Your task to perform on an android device: find photos in the google photos app Image 0: 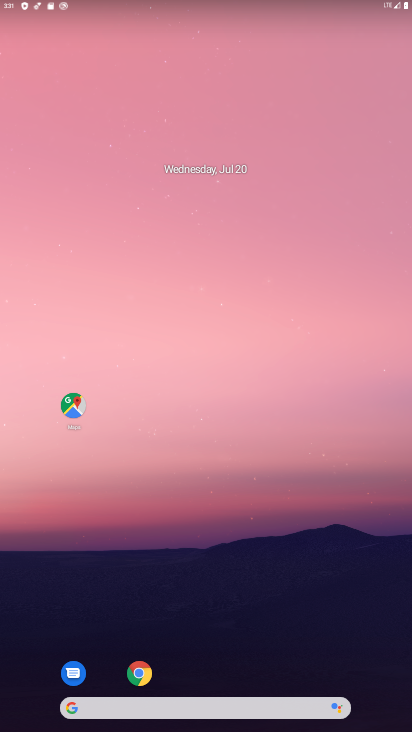
Step 0: drag from (298, 510) to (298, 77)
Your task to perform on an android device: find photos in the google photos app Image 1: 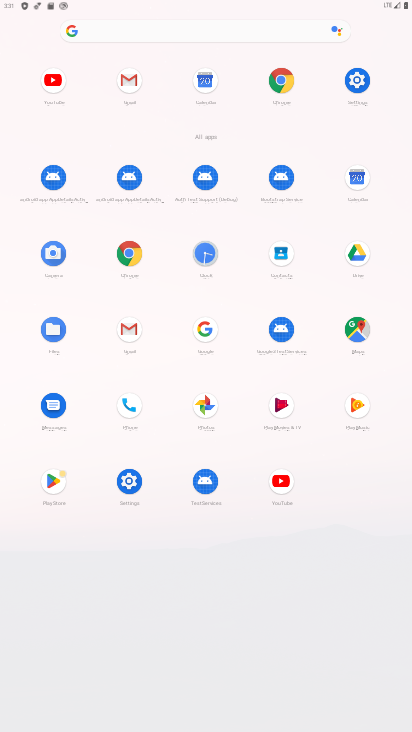
Step 1: click (210, 407)
Your task to perform on an android device: find photos in the google photos app Image 2: 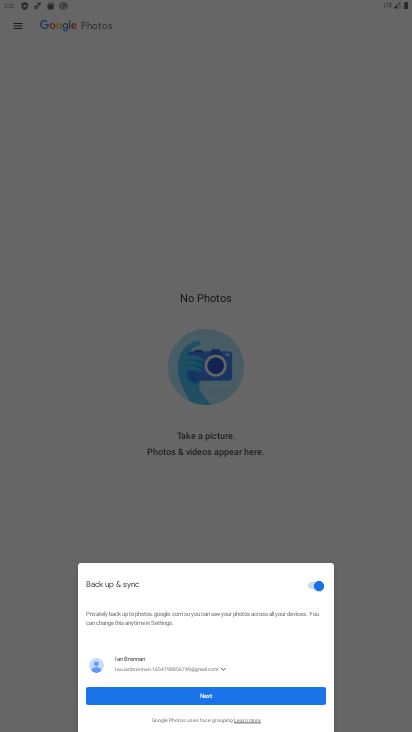
Step 2: task complete